Your task to perform on an android device: turn off javascript in the chrome app Image 0: 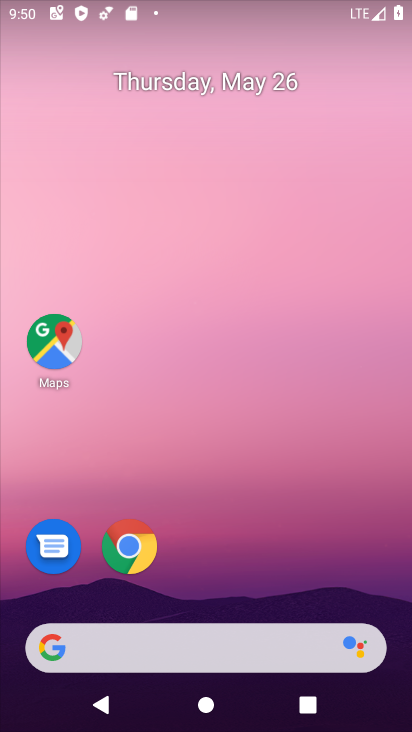
Step 0: drag from (357, 560) to (315, 154)
Your task to perform on an android device: turn off javascript in the chrome app Image 1: 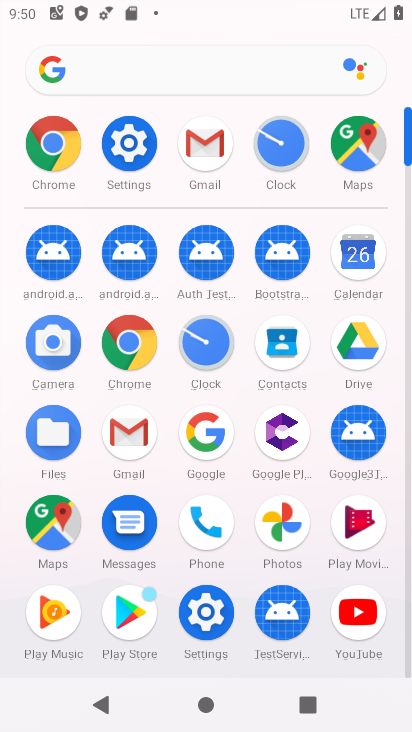
Step 1: click (132, 156)
Your task to perform on an android device: turn off javascript in the chrome app Image 2: 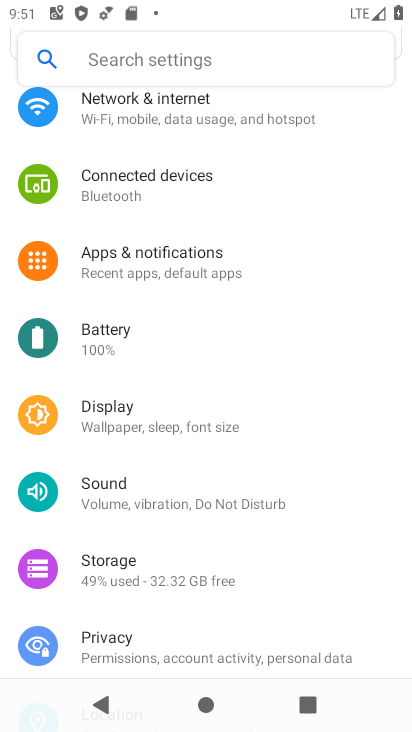
Step 2: press home button
Your task to perform on an android device: turn off javascript in the chrome app Image 3: 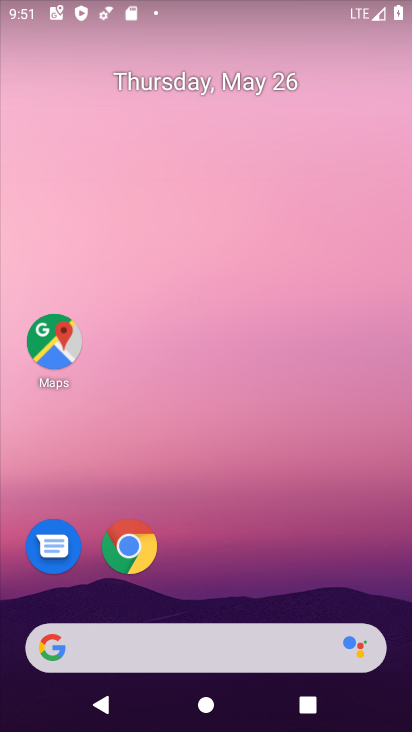
Step 3: drag from (312, 567) to (283, 181)
Your task to perform on an android device: turn off javascript in the chrome app Image 4: 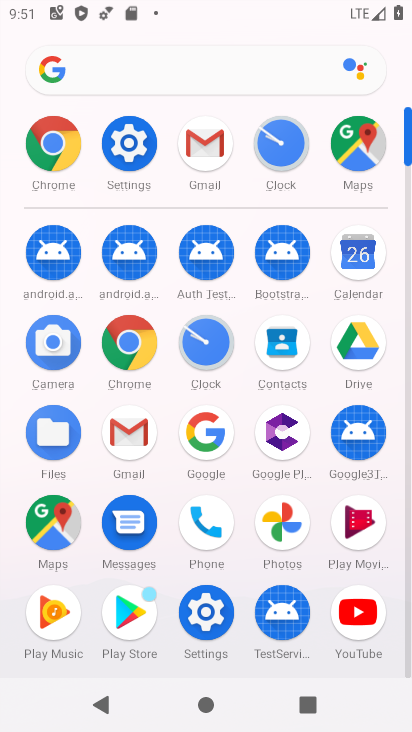
Step 4: click (134, 361)
Your task to perform on an android device: turn off javascript in the chrome app Image 5: 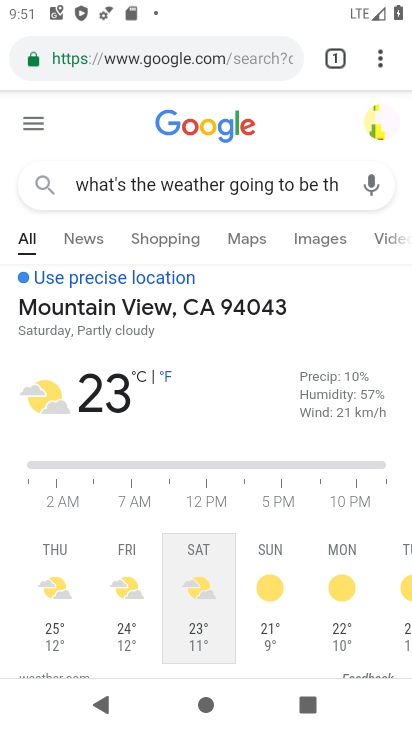
Step 5: drag from (380, 77) to (219, 573)
Your task to perform on an android device: turn off javascript in the chrome app Image 6: 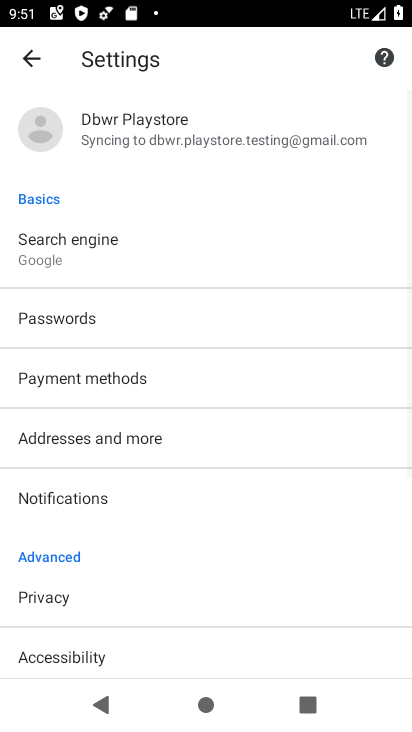
Step 6: drag from (193, 573) to (228, 267)
Your task to perform on an android device: turn off javascript in the chrome app Image 7: 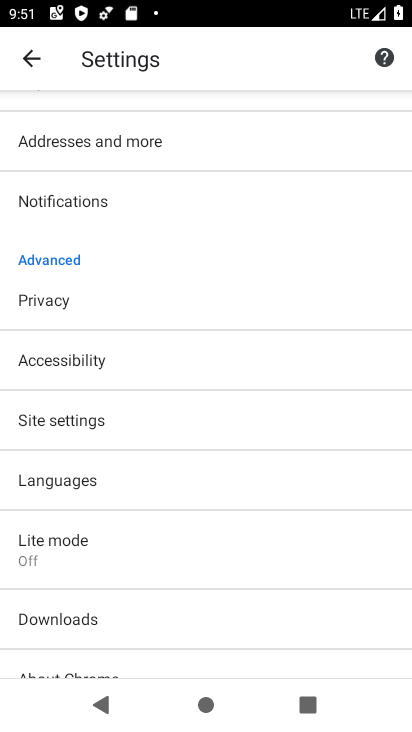
Step 7: click (174, 424)
Your task to perform on an android device: turn off javascript in the chrome app Image 8: 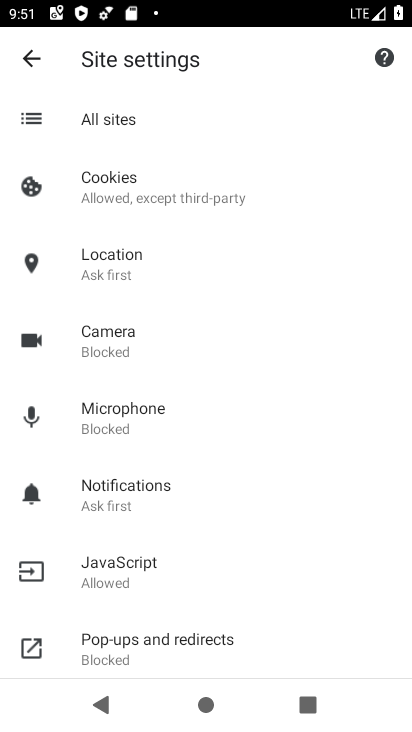
Step 8: click (180, 572)
Your task to perform on an android device: turn off javascript in the chrome app Image 9: 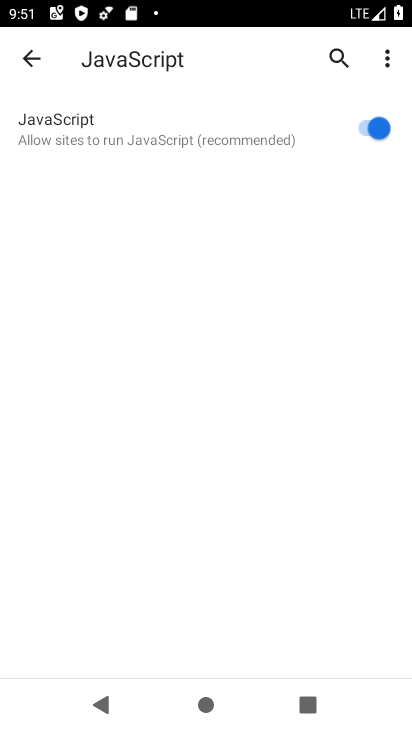
Step 9: click (368, 129)
Your task to perform on an android device: turn off javascript in the chrome app Image 10: 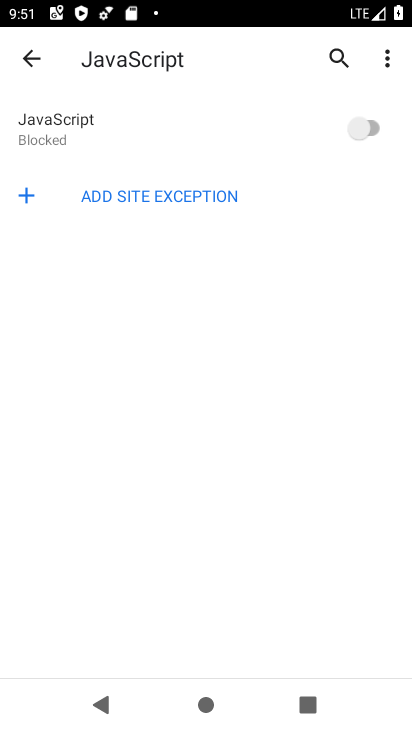
Step 10: task complete